Your task to perform on an android device: Open Youtube and go to "Your channel" Image 0: 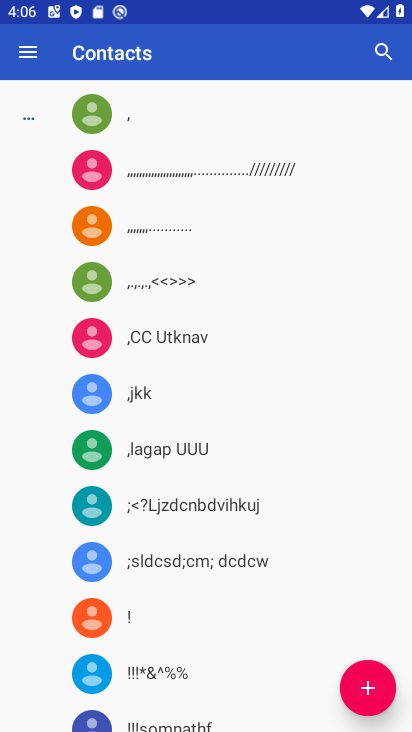
Step 0: press back button
Your task to perform on an android device: Open Youtube and go to "Your channel" Image 1: 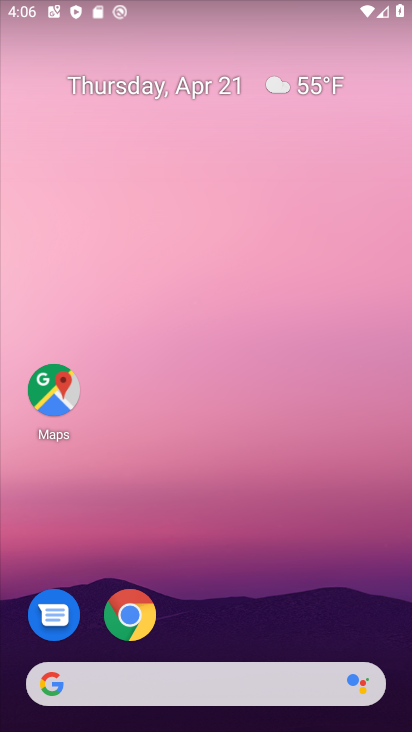
Step 1: drag from (247, 589) to (188, 3)
Your task to perform on an android device: Open Youtube and go to "Your channel" Image 2: 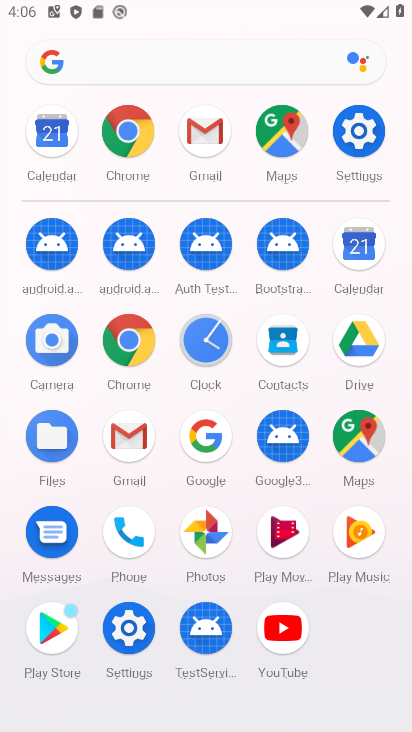
Step 2: drag from (7, 572) to (7, 220)
Your task to perform on an android device: Open Youtube and go to "Your channel" Image 3: 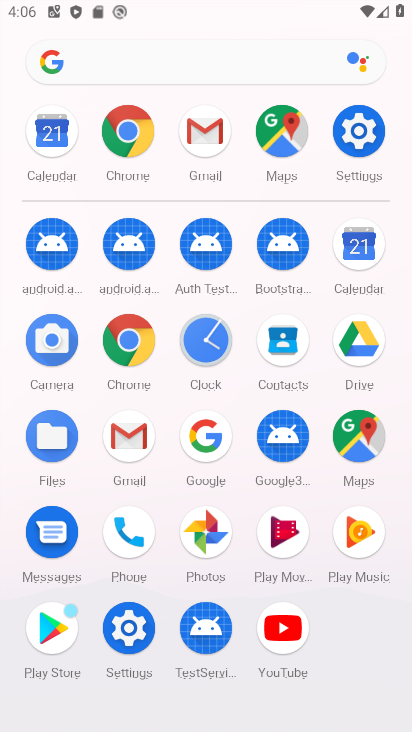
Step 3: click (284, 626)
Your task to perform on an android device: Open Youtube and go to "Your channel" Image 4: 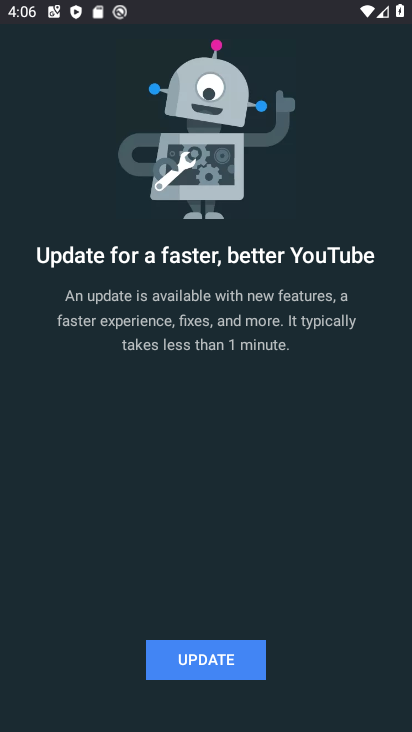
Step 4: click (229, 663)
Your task to perform on an android device: Open Youtube and go to "Your channel" Image 5: 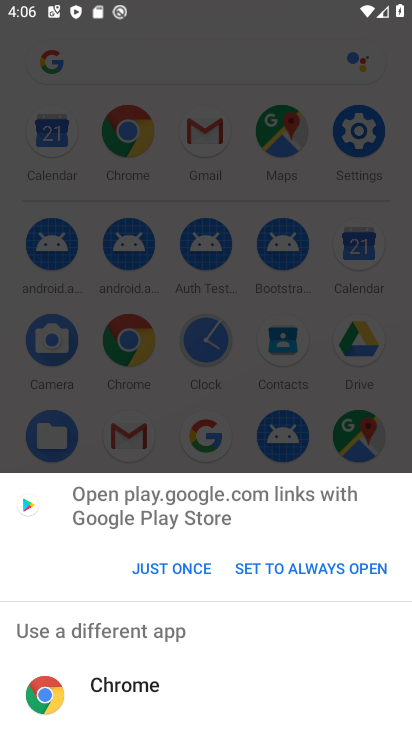
Step 5: click (144, 564)
Your task to perform on an android device: Open Youtube and go to "Your channel" Image 6: 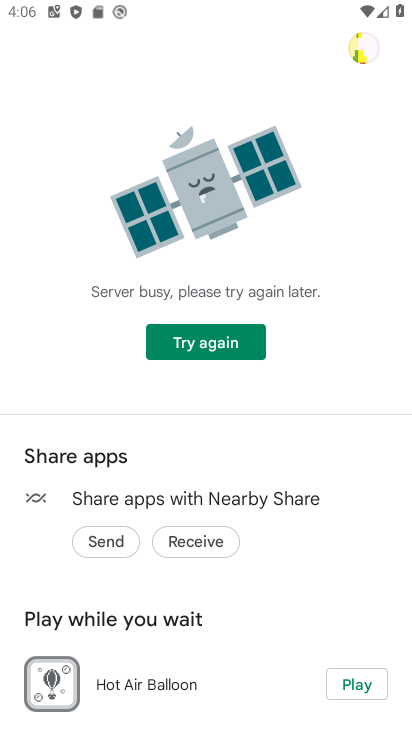
Step 6: click (237, 336)
Your task to perform on an android device: Open Youtube and go to "Your channel" Image 7: 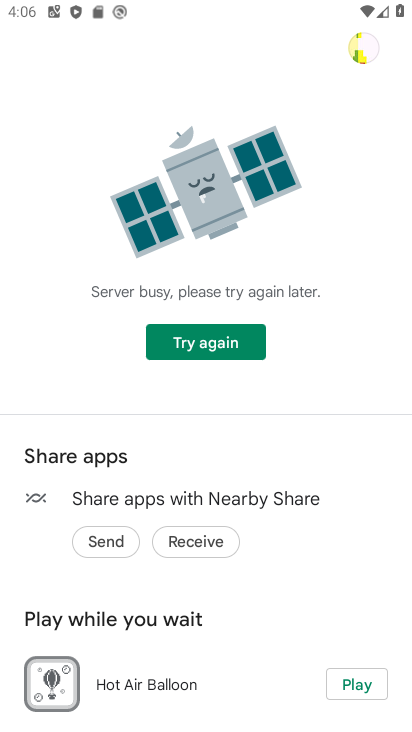
Step 7: click (237, 336)
Your task to perform on an android device: Open Youtube and go to "Your channel" Image 8: 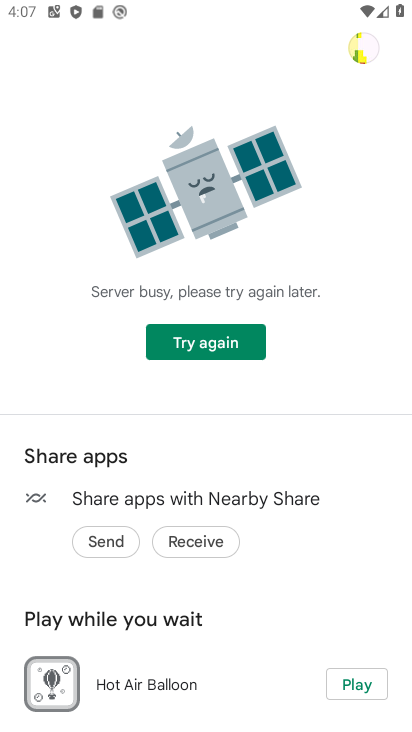
Step 8: click (237, 336)
Your task to perform on an android device: Open Youtube and go to "Your channel" Image 9: 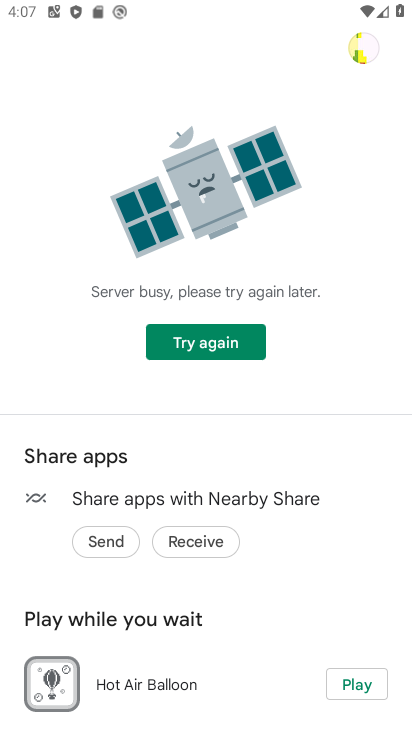
Step 9: task complete